Your task to perform on an android device: Open Google Chrome Image 0: 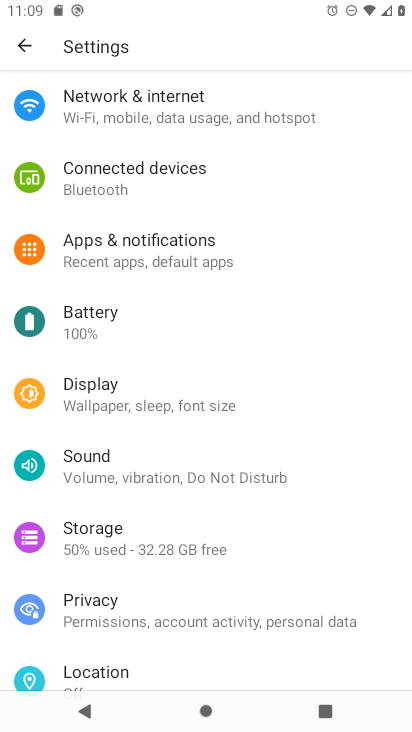
Step 0: press home button
Your task to perform on an android device: Open Google Chrome Image 1: 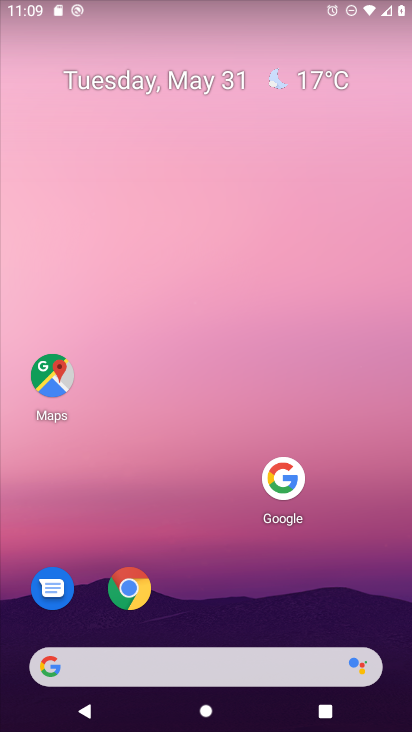
Step 1: click (131, 592)
Your task to perform on an android device: Open Google Chrome Image 2: 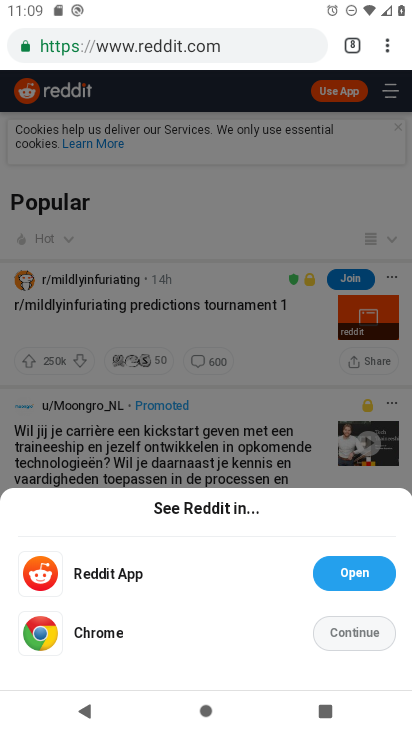
Step 2: task complete